Your task to perform on an android device: Open sound settings Image 0: 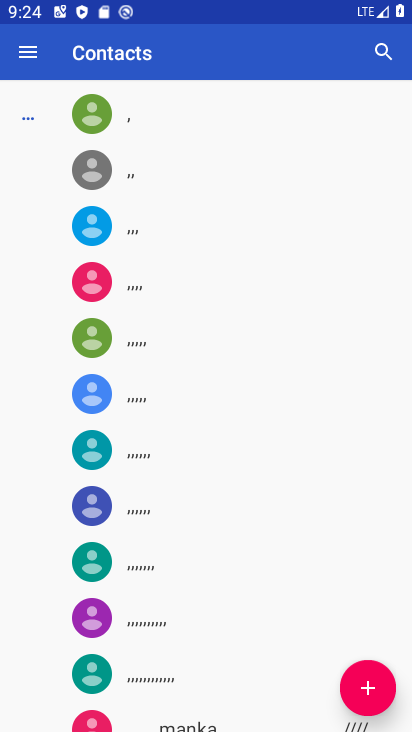
Step 0: press home button
Your task to perform on an android device: Open sound settings Image 1: 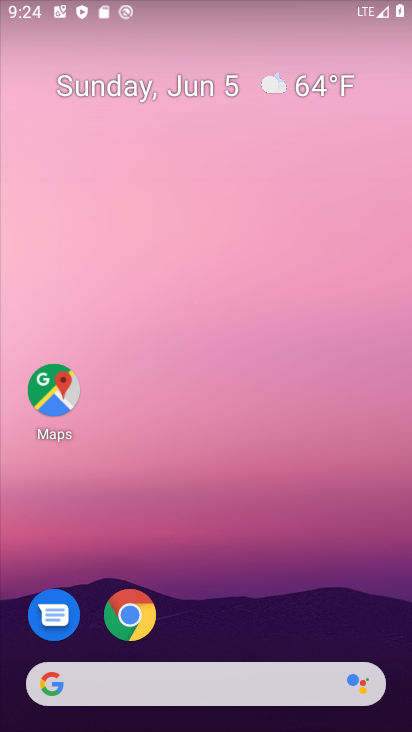
Step 1: drag from (313, 464) to (292, 180)
Your task to perform on an android device: Open sound settings Image 2: 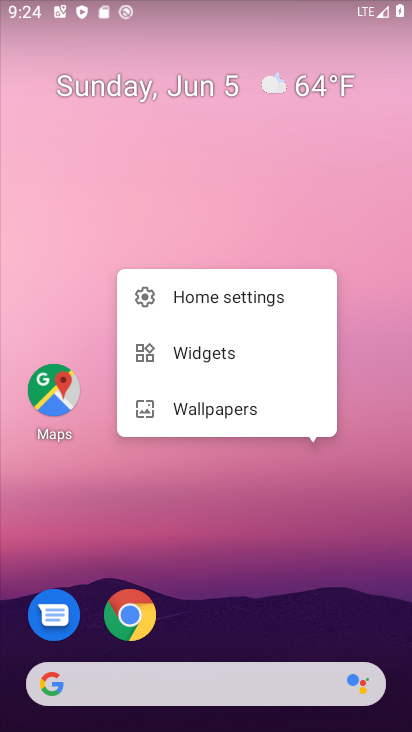
Step 2: drag from (269, 668) to (351, 53)
Your task to perform on an android device: Open sound settings Image 3: 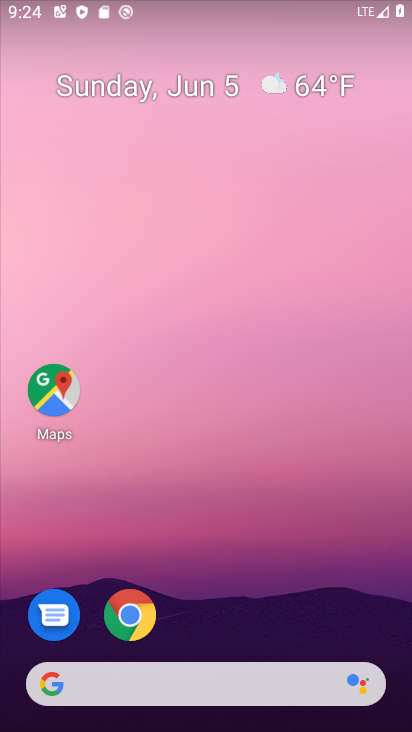
Step 3: drag from (213, 698) to (265, 169)
Your task to perform on an android device: Open sound settings Image 4: 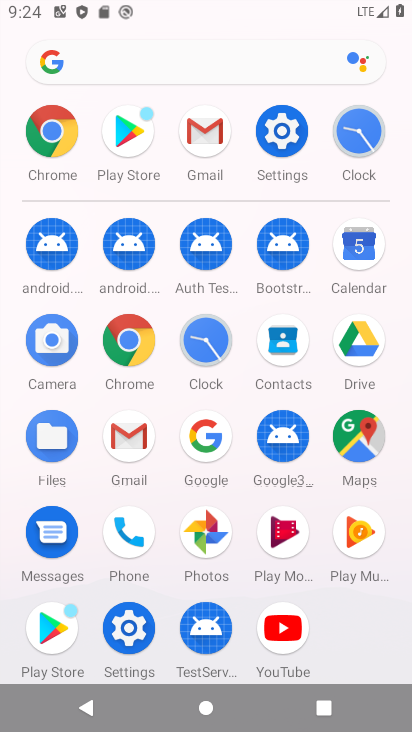
Step 4: click (281, 136)
Your task to perform on an android device: Open sound settings Image 5: 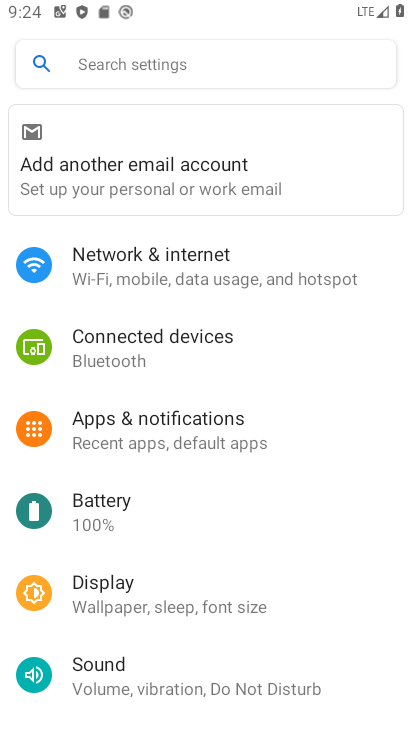
Step 5: click (92, 546)
Your task to perform on an android device: Open sound settings Image 6: 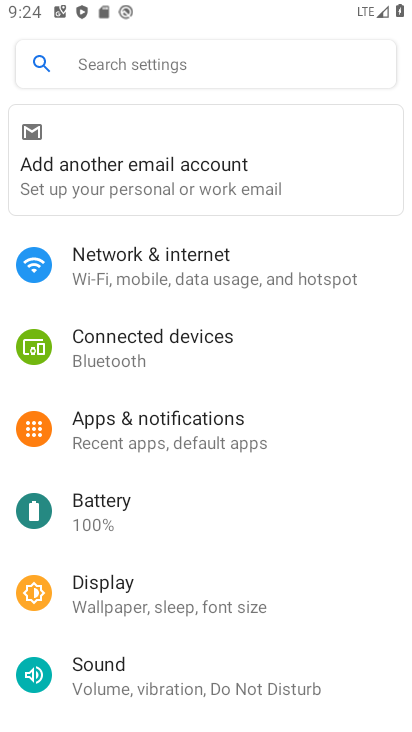
Step 6: click (147, 686)
Your task to perform on an android device: Open sound settings Image 7: 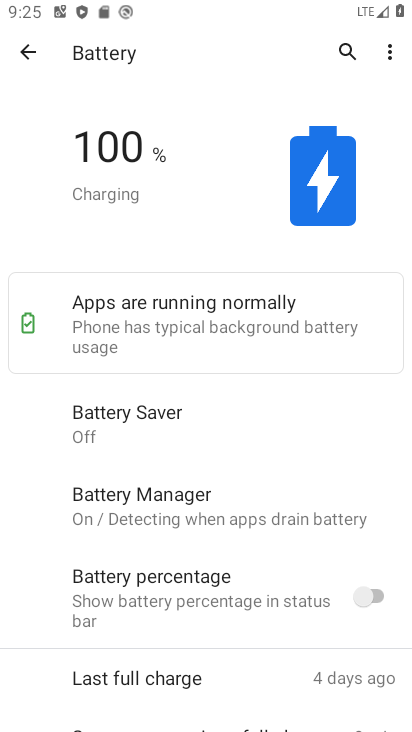
Step 7: task complete